Your task to perform on an android device: make emails show in primary in the gmail app Image 0: 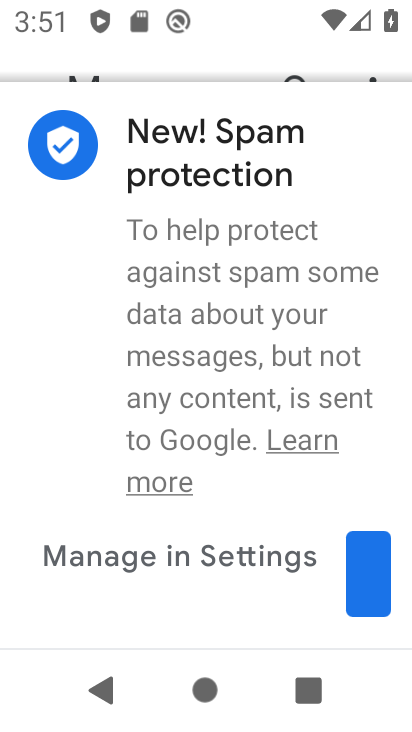
Step 0: press home button
Your task to perform on an android device: make emails show in primary in the gmail app Image 1: 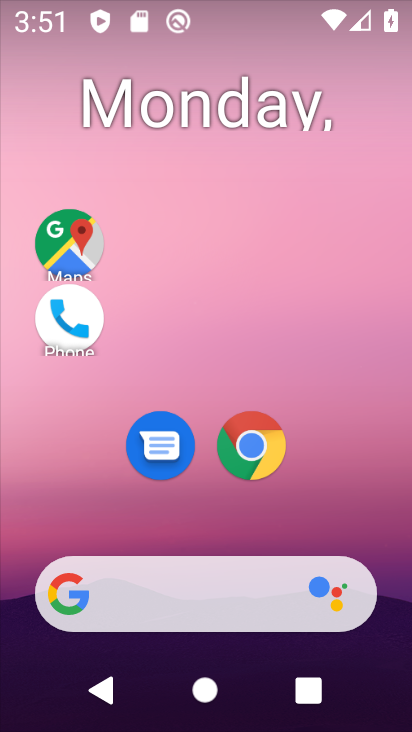
Step 1: drag from (340, 526) to (270, 66)
Your task to perform on an android device: make emails show in primary in the gmail app Image 2: 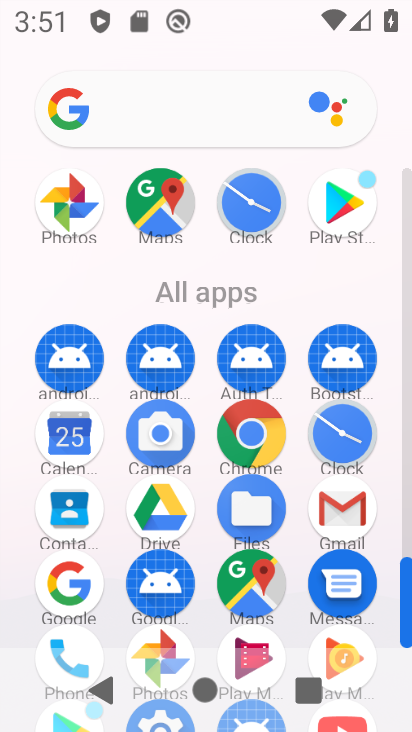
Step 2: click (344, 511)
Your task to perform on an android device: make emails show in primary in the gmail app Image 3: 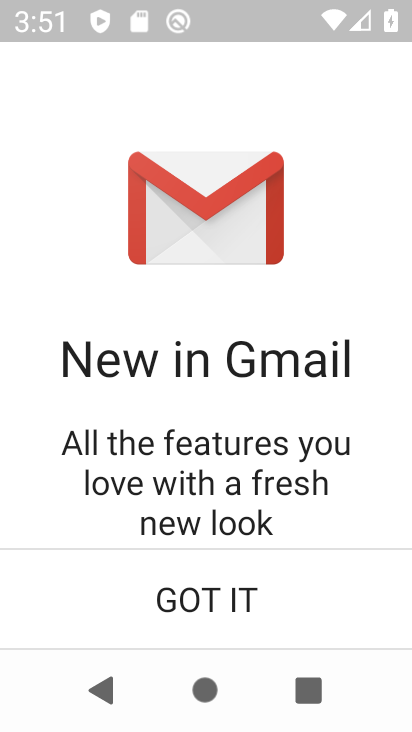
Step 3: click (214, 590)
Your task to perform on an android device: make emails show in primary in the gmail app Image 4: 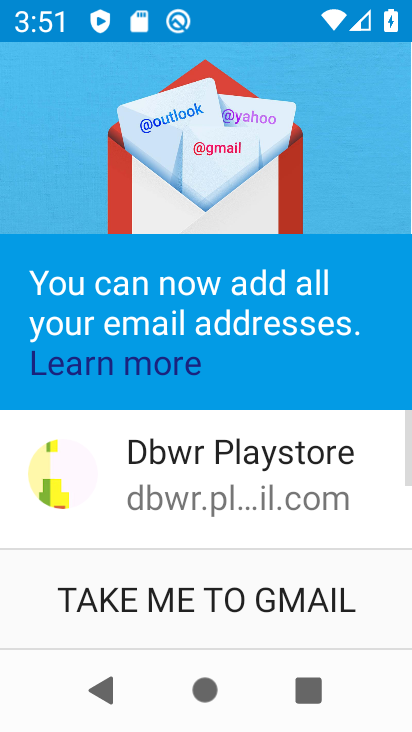
Step 4: click (214, 590)
Your task to perform on an android device: make emails show in primary in the gmail app Image 5: 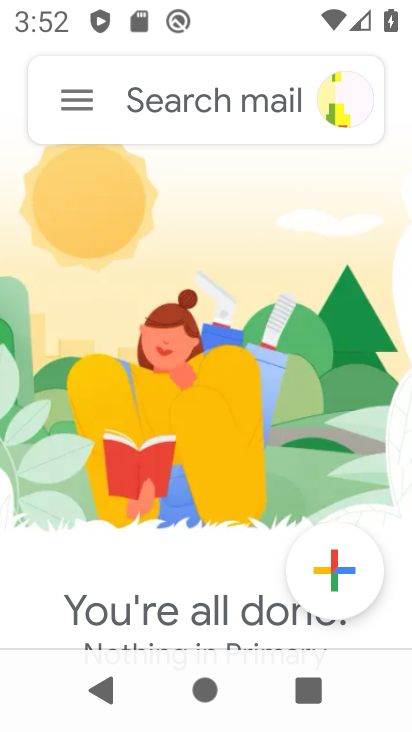
Step 5: click (82, 98)
Your task to perform on an android device: make emails show in primary in the gmail app Image 6: 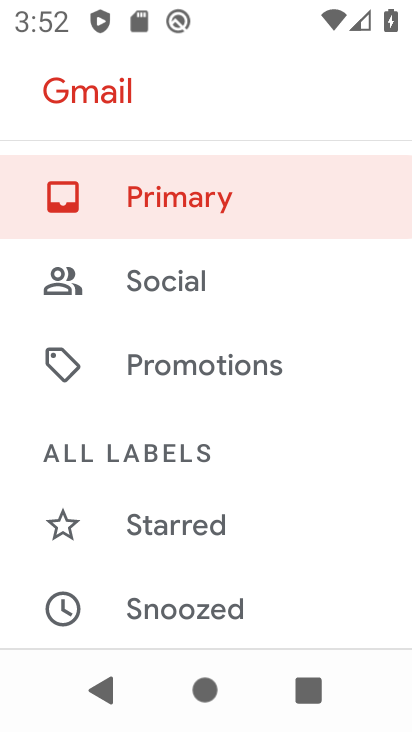
Step 6: task complete